Your task to perform on an android device: open the mobile data screen to see how much data has been used Image 0: 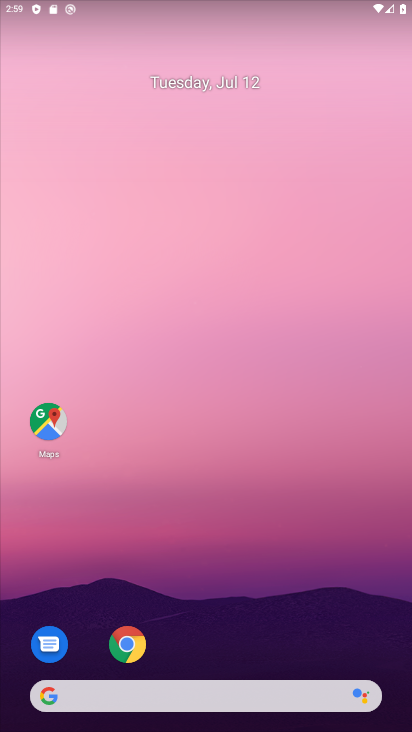
Step 0: press home button
Your task to perform on an android device: open the mobile data screen to see how much data has been used Image 1: 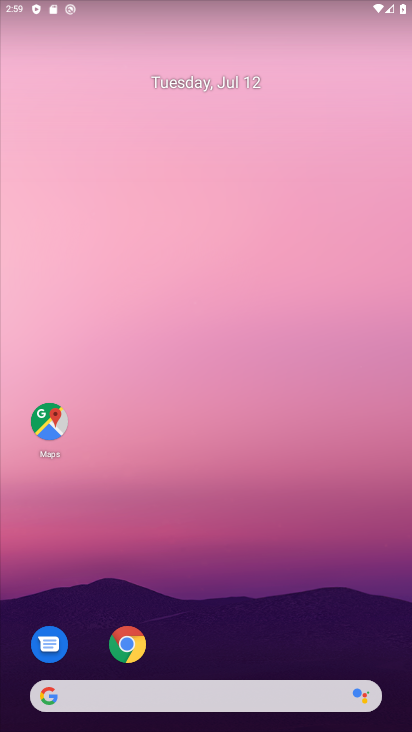
Step 1: drag from (278, 382) to (228, 6)
Your task to perform on an android device: open the mobile data screen to see how much data has been used Image 2: 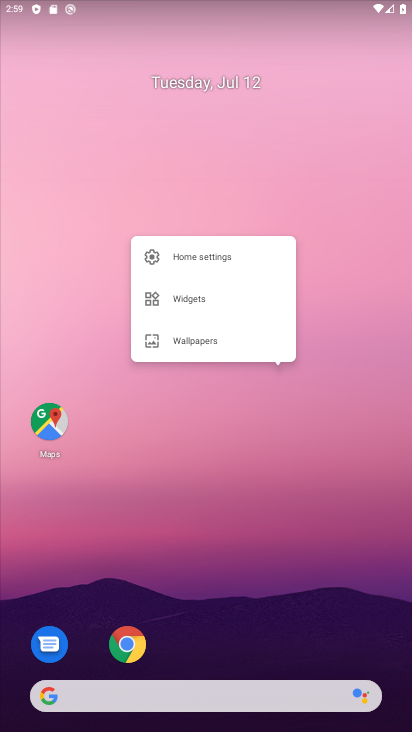
Step 2: click (286, 524)
Your task to perform on an android device: open the mobile data screen to see how much data has been used Image 3: 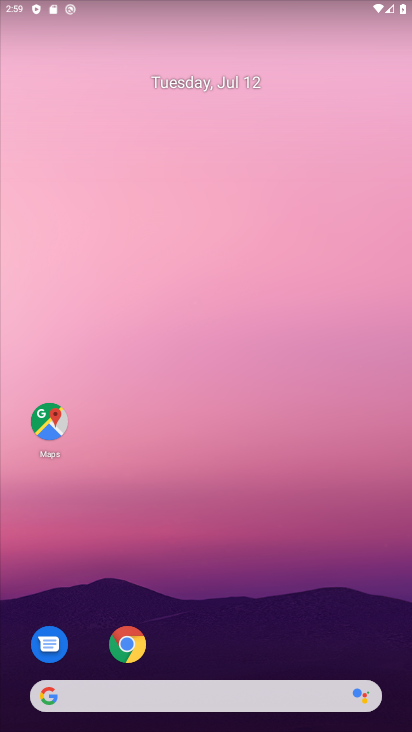
Step 3: drag from (275, 577) to (219, 170)
Your task to perform on an android device: open the mobile data screen to see how much data has been used Image 4: 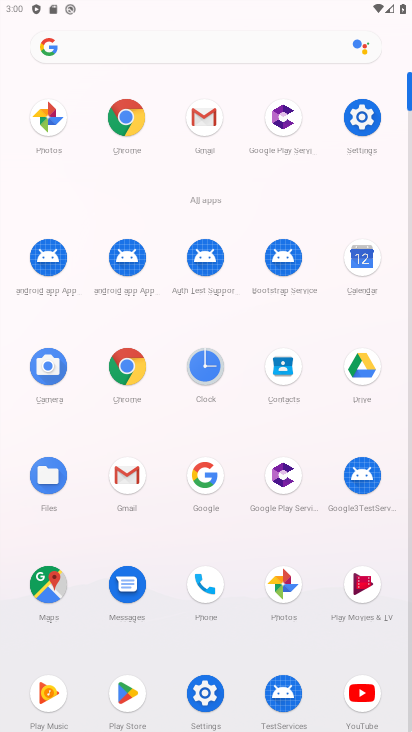
Step 4: click (366, 118)
Your task to perform on an android device: open the mobile data screen to see how much data has been used Image 5: 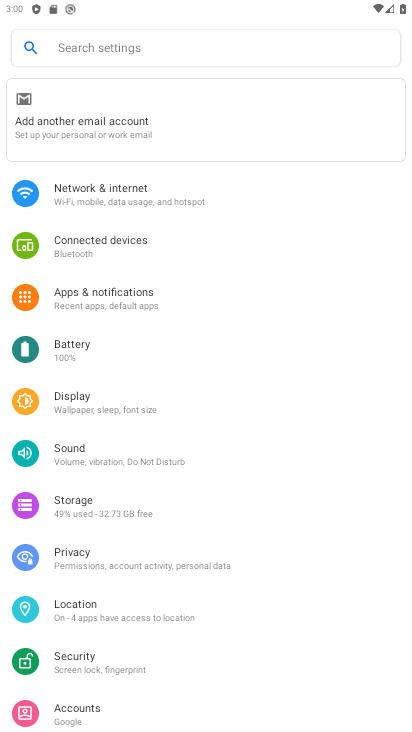
Step 5: click (88, 199)
Your task to perform on an android device: open the mobile data screen to see how much data has been used Image 6: 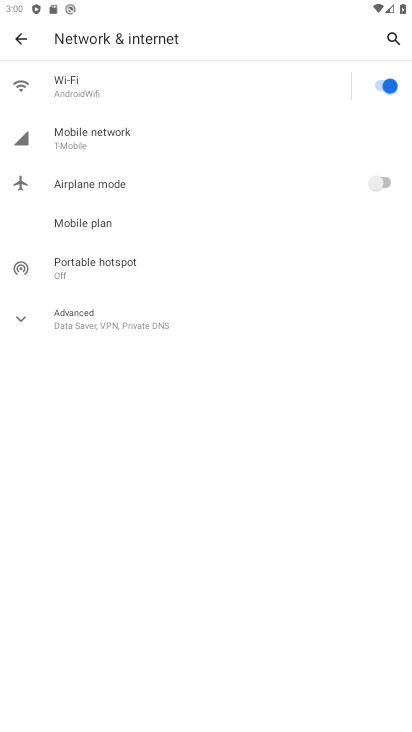
Step 6: click (150, 145)
Your task to perform on an android device: open the mobile data screen to see how much data has been used Image 7: 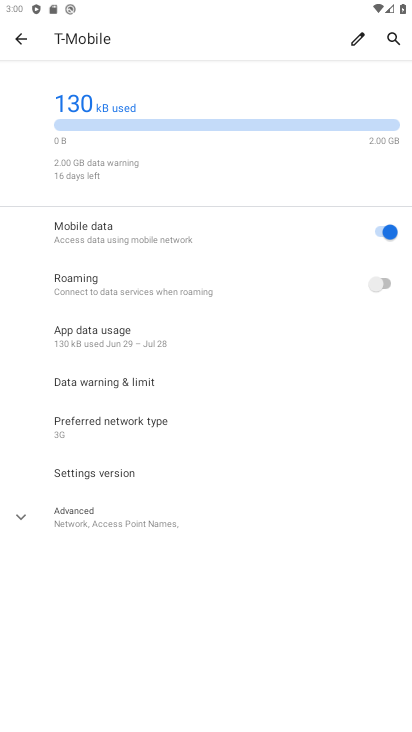
Step 7: task complete